Your task to perform on an android device: Open location settings Image 0: 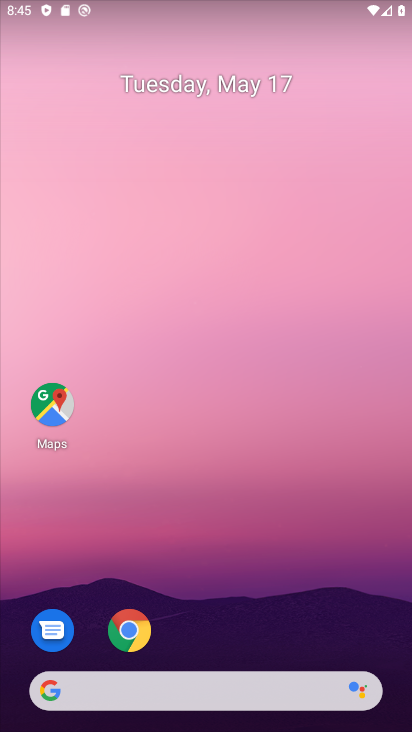
Step 0: drag from (369, 598) to (373, 264)
Your task to perform on an android device: Open location settings Image 1: 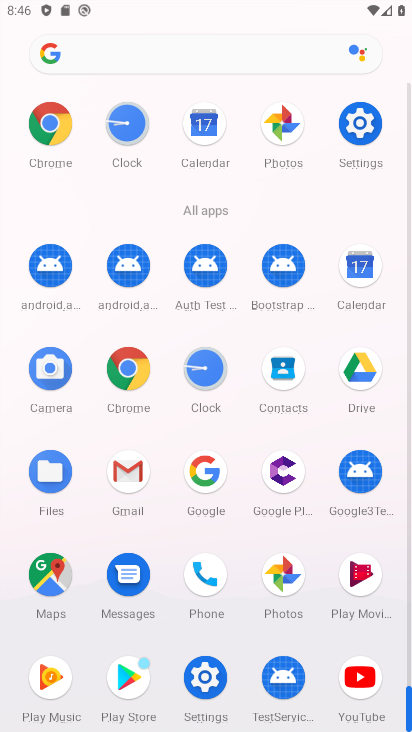
Step 1: click (364, 123)
Your task to perform on an android device: Open location settings Image 2: 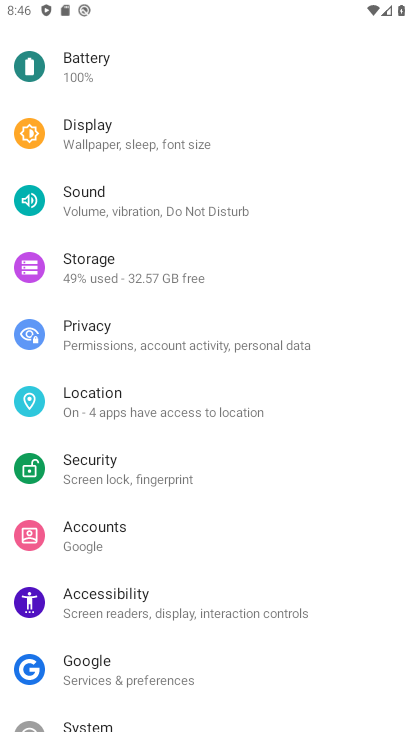
Step 2: click (162, 409)
Your task to perform on an android device: Open location settings Image 3: 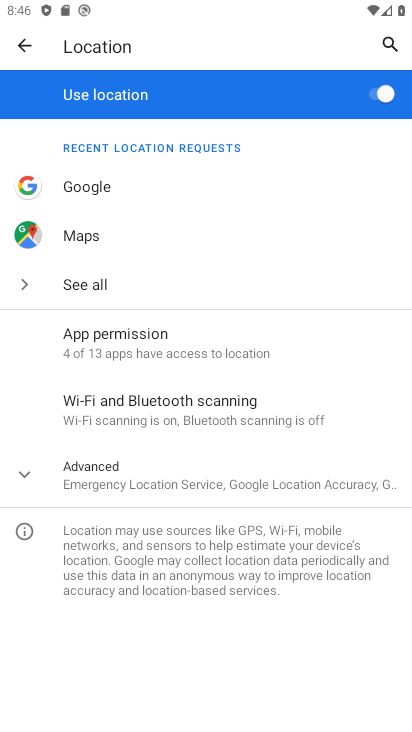
Step 3: task complete